Your task to perform on an android device: toggle javascript in the chrome app Image 0: 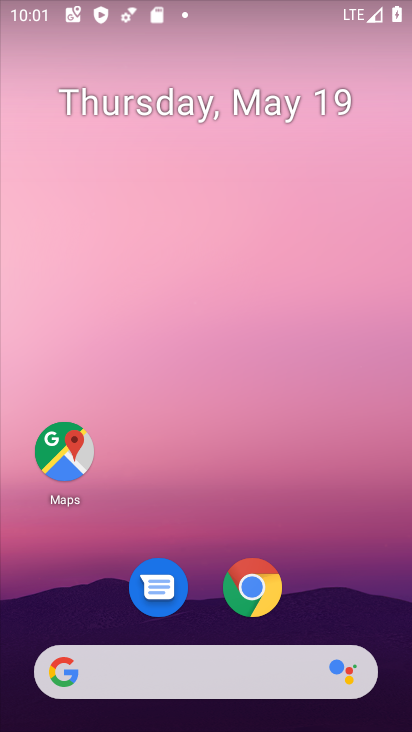
Step 0: click (258, 572)
Your task to perform on an android device: toggle javascript in the chrome app Image 1: 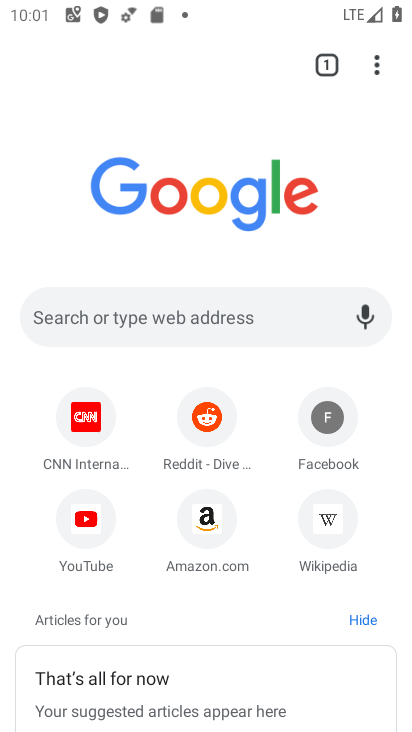
Step 1: click (392, 59)
Your task to perform on an android device: toggle javascript in the chrome app Image 2: 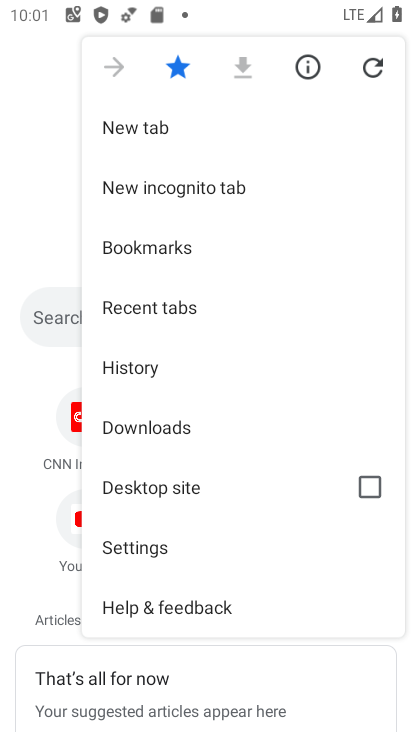
Step 2: click (138, 560)
Your task to perform on an android device: toggle javascript in the chrome app Image 3: 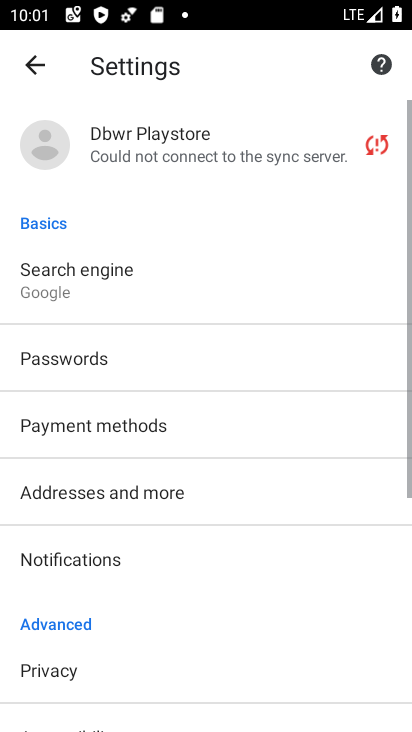
Step 3: drag from (138, 560) to (154, 158)
Your task to perform on an android device: toggle javascript in the chrome app Image 4: 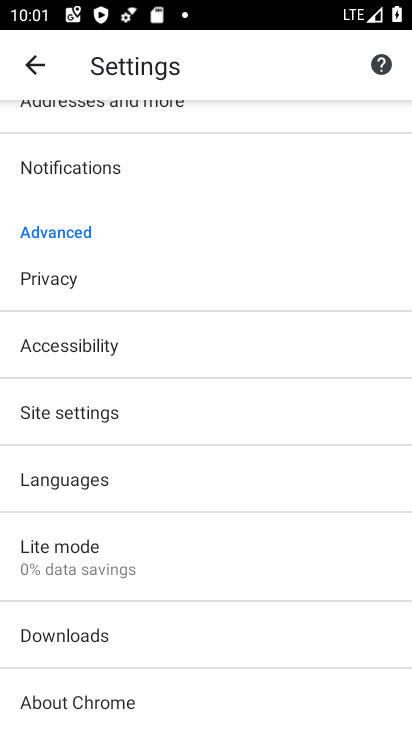
Step 4: click (81, 422)
Your task to perform on an android device: toggle javascript in the chrome app Image 5: 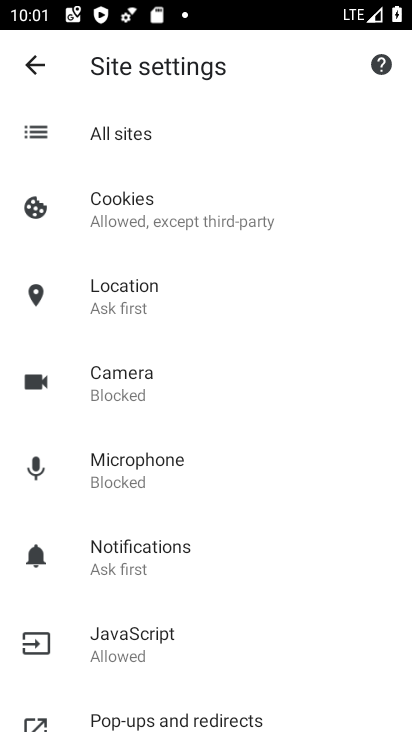
Step 5: click (153, 649)
Your task to perform on an android device: toggle javascript in the chrome app Image 6: 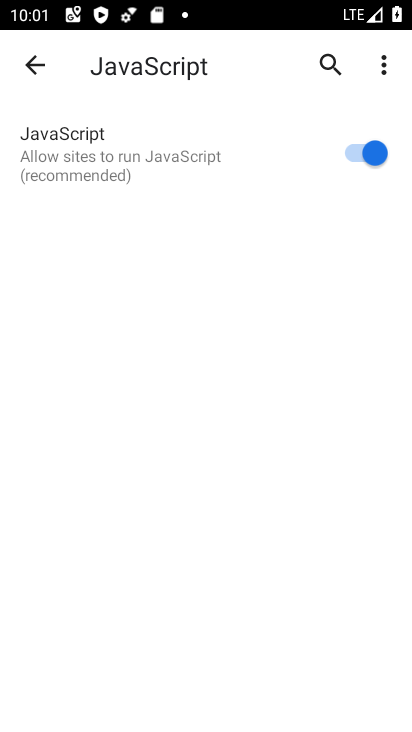
Step 6: click (355, 149)
Your task to perform on an android device: toggle javascript in the chrome app Image 7: 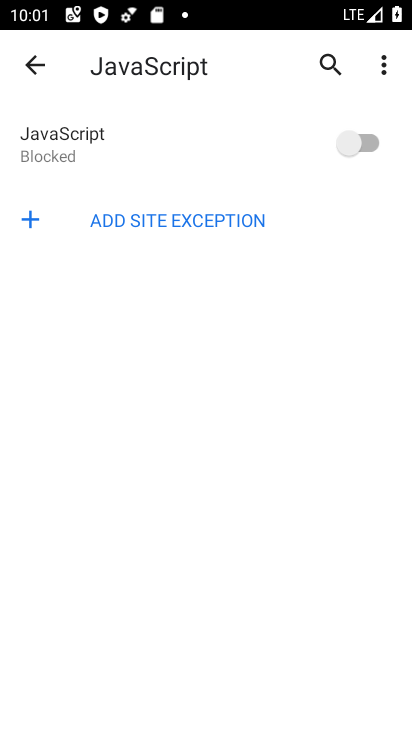
Step 7: click (355, 149)
Your task to perform on an android device: toggle javascript in the chrome app Image 8: 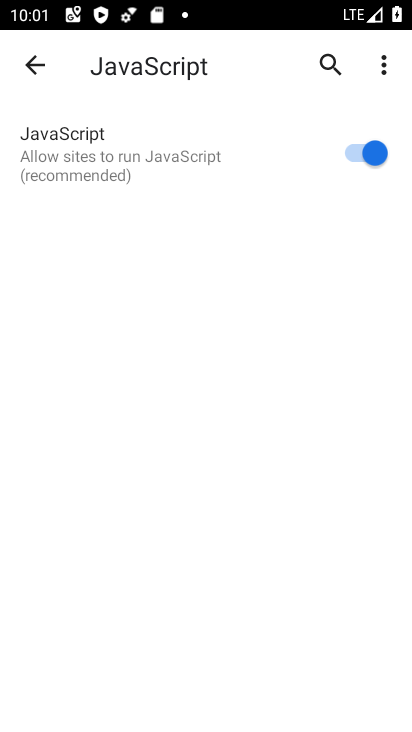
Step 8: task complete